Your task to perform on an android device: Do I have any events tomorrow? Image 0: 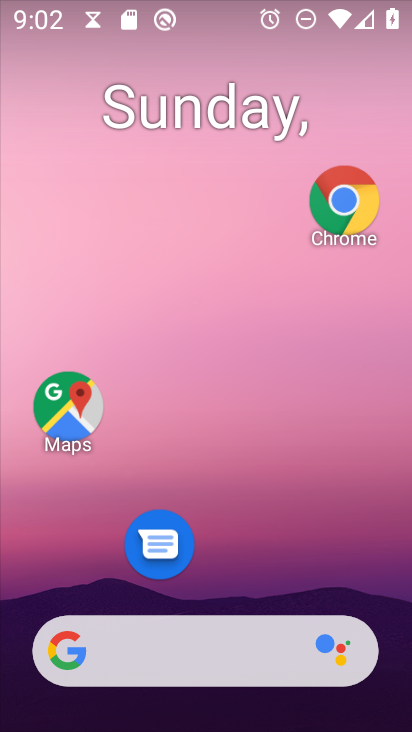
Step 0: drag from (272, 577) to (252, 147)
Your task to perform on an android device: Do I have any events tomorrow? Image 1: 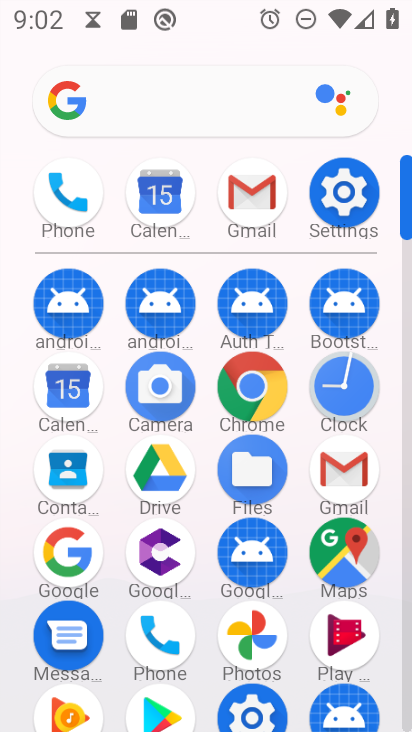
Step 1: click (149, 194)
Your task to perform on an android device: Do I have any events tomorrow? Image 2: 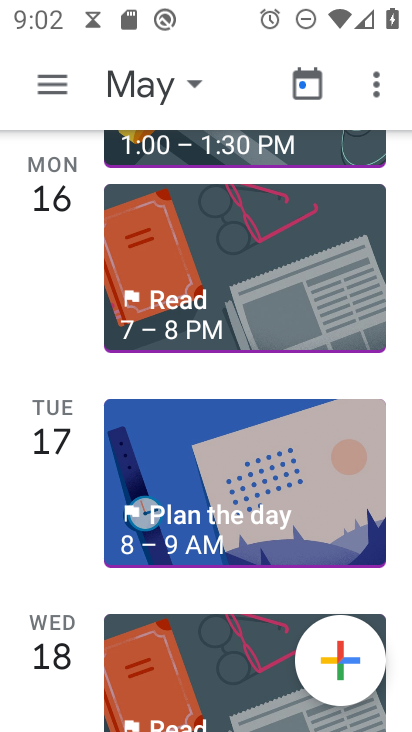
Step 2: task complete